Your task to perform on an android device: open a bookmark in the chrome app Image 0: 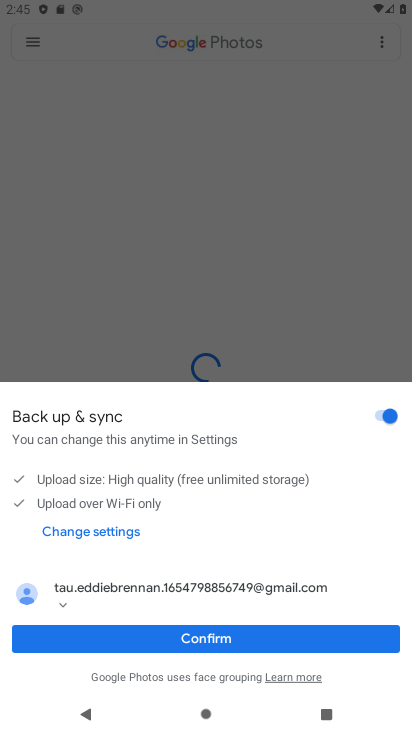
Step 0: drag from (287, 619) to (310, 575)
Your task to perform on an android device: open a bookmark in the chrome app Image 1: 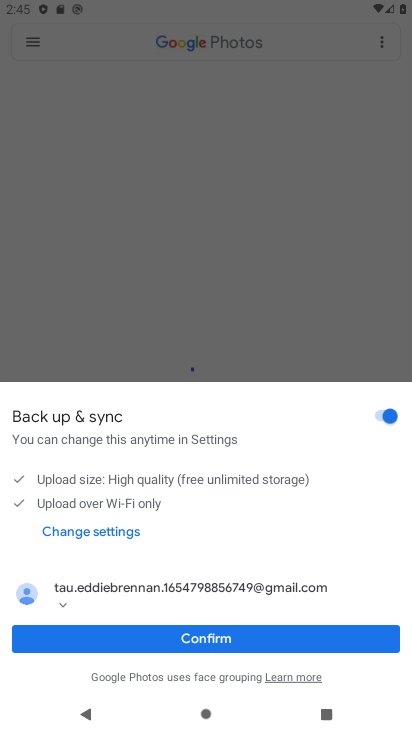
Step 1: press back button
Your task to perform on an android device: open a bookmark in the chrome app Image 2: 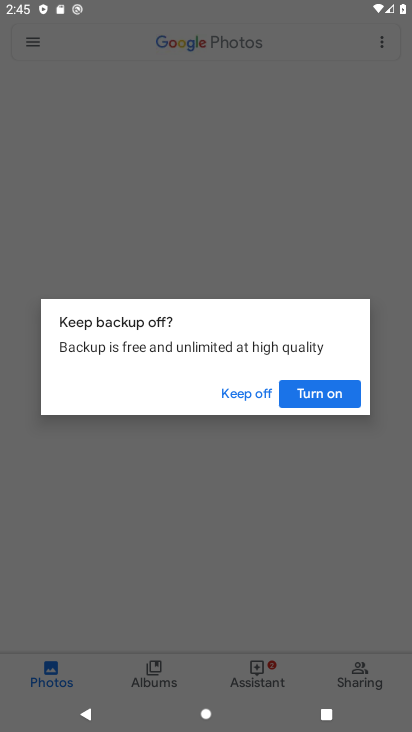
Step 2: press back button
Your task to perform on an android device: open a bookmark in the chrome app Image 3: 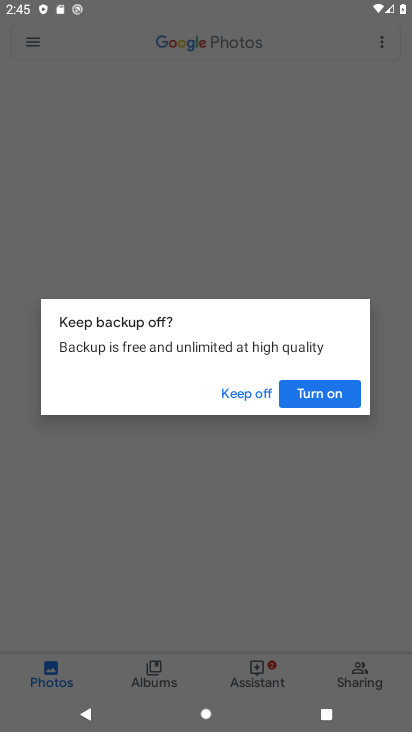
Step 3: press back button
Your task to perform on an android device: open a bookmark in the chrome app Image 4: 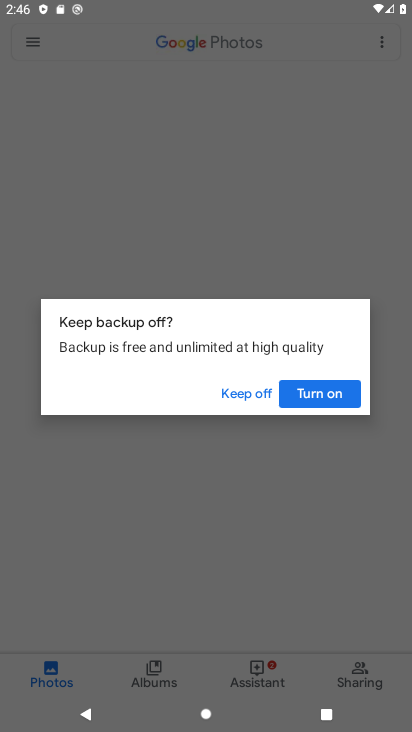
Step 4: press back button
Your task to perform on an android device: open a bookmark in the chrome app Image 5: 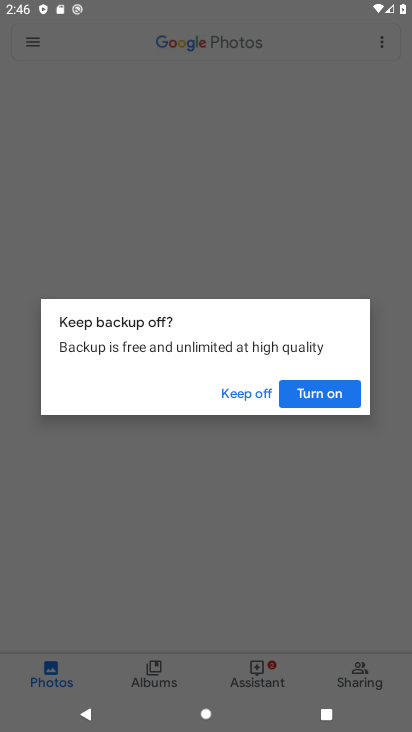
Step 5: press home button
Your task to perform on an android device: open a bookmark in the chrome app Image 6: 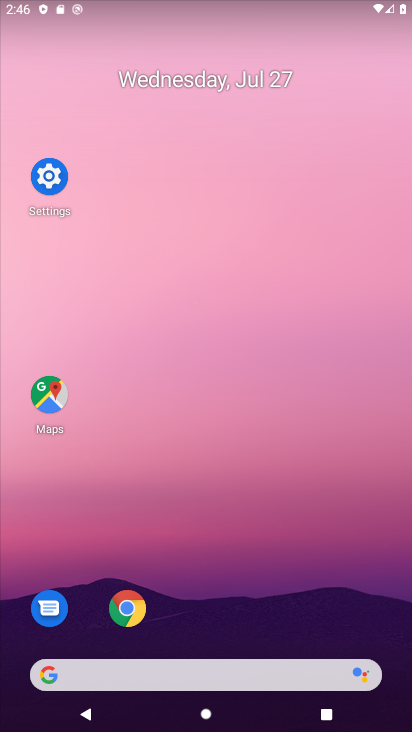
Step 6: click (131, 611)
Your task to perform on an android device: open a bookmark in the chrome app Image 7: 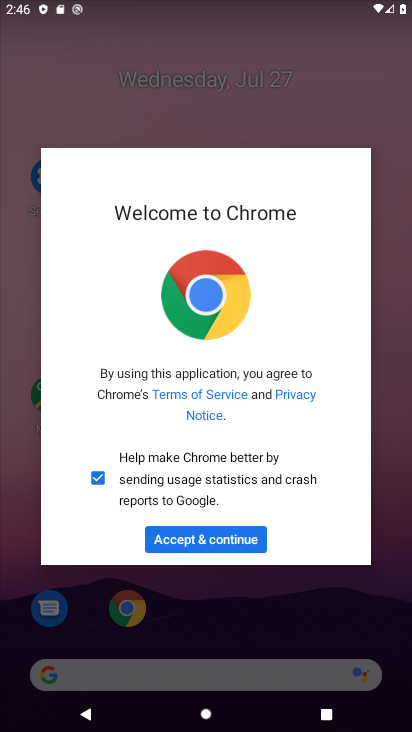
Step 7: click (212, 545)
Your task to perform on an android device: open a bookmark in the chrome app Image 8: 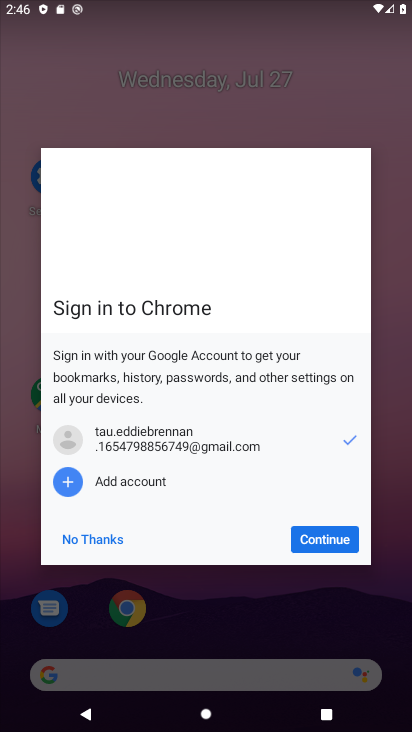
Step 8: click (343, 545)
Your task to perform on an android device: open a bookmark in the chrome app Image 9: 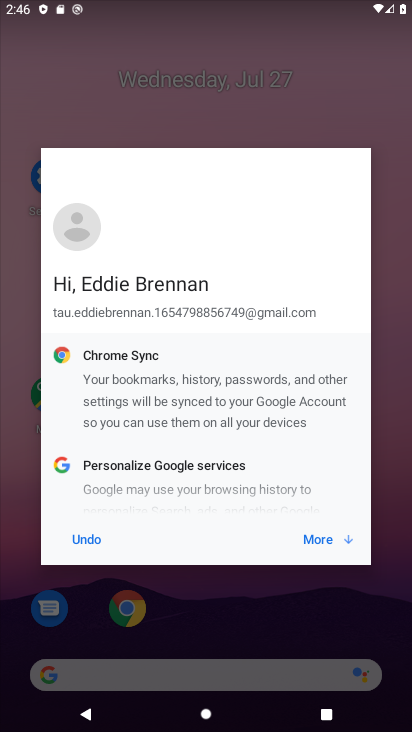
Step 9: click (344, 545)
Your task to perform on an android device: open a bookmark in the chrome app Image 10: 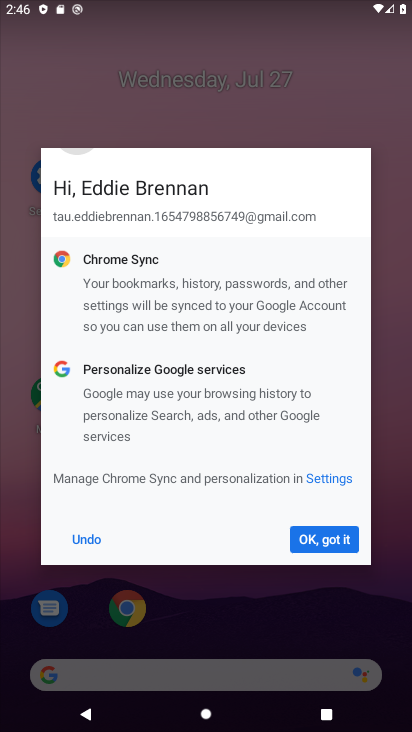
Step 10: click (344, 545)
Your task to perform on an android device: open a bookmark in the chrome app Image 11: 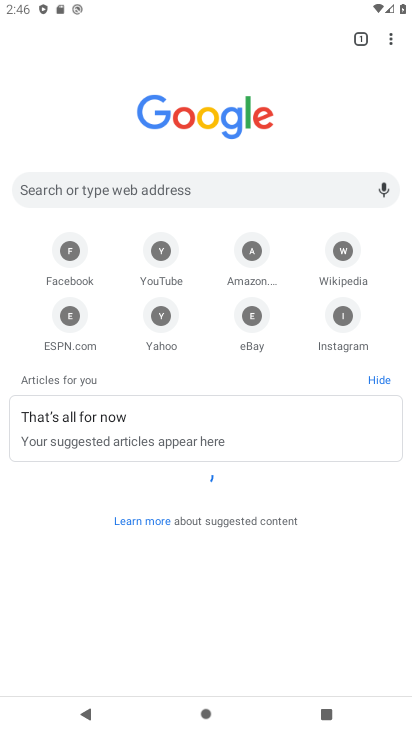
Step 11: click (388, 41)
Your task to perform on an android device: open a bookmark in the chrome app Image 12: 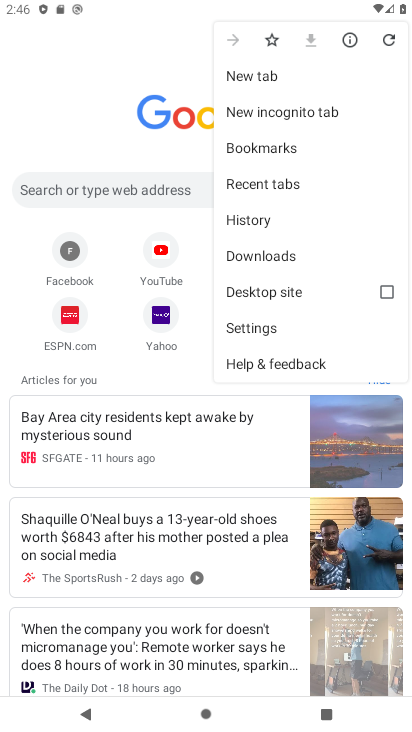
Step 12: click (263, 148)
Your task to perform on an android device: open a bookmark in the chrome app Image 13: 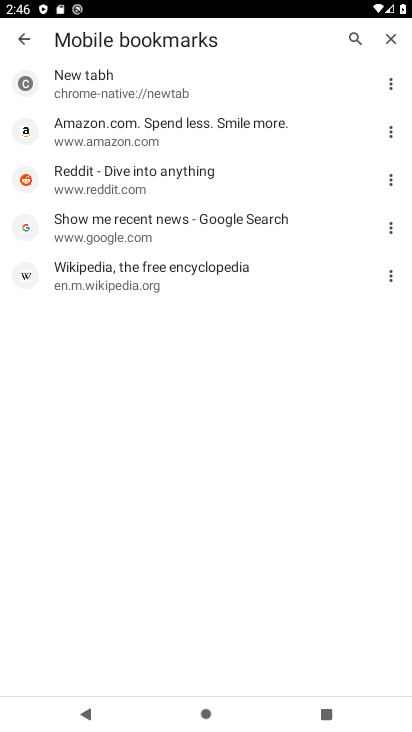
Step 13: task complete